Your task to perform on an android device: check android version Image 0: 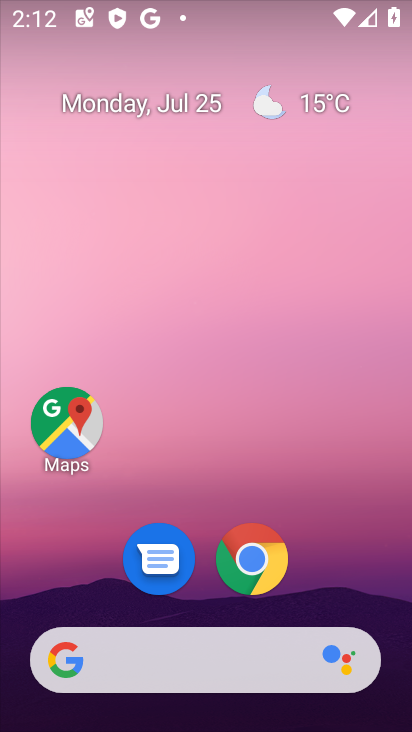
Step 0: drag from (243, 417) to (245, 24)
Your task to perform on an android device: check android version Image 1: 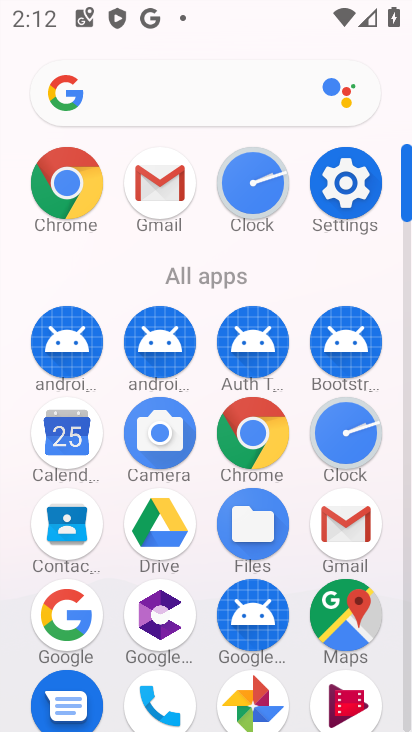
Step 1: click (345, 178)
Your task to perform on an android device: check android version Image 2: 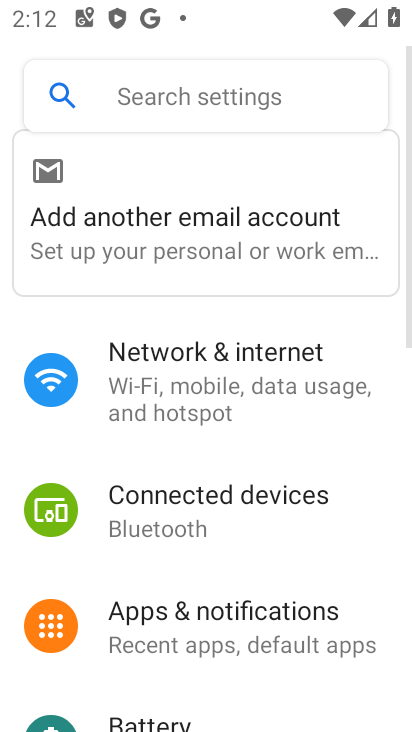
Step 2: drag from (143, 651) to (292, 21)
Your task to perform on an android device: check android version Image 3: 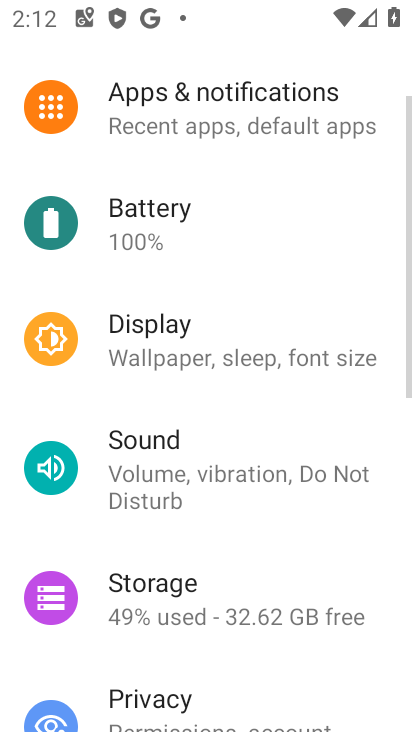
Step 3: drag from (187, 613) to (293, 13)
Your task to perform on an android device: check android version Image 4: 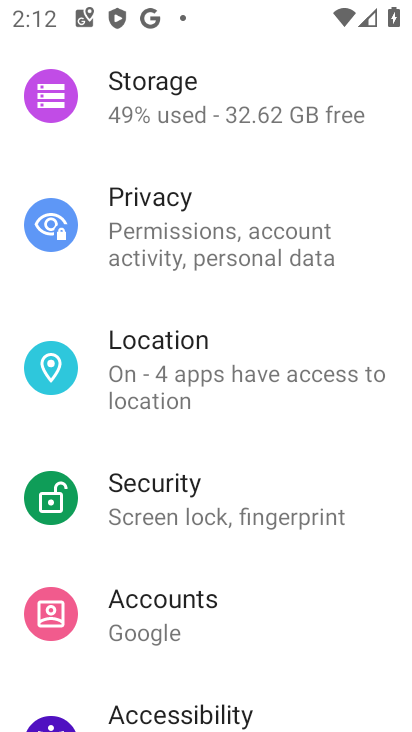
Step 4: drag from (252, 591) to (355, 64)
Your task to perform on an android device: check android version Image 5: 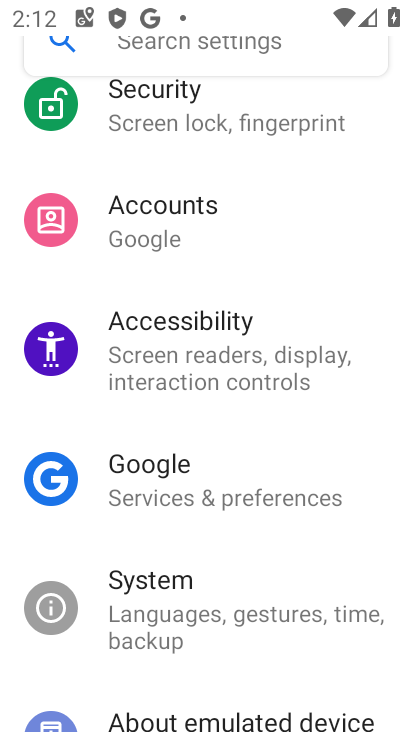
Step 5: drag from (203, 607) to (322, 32)
Your task to perform on an android device: check android version Image 6: 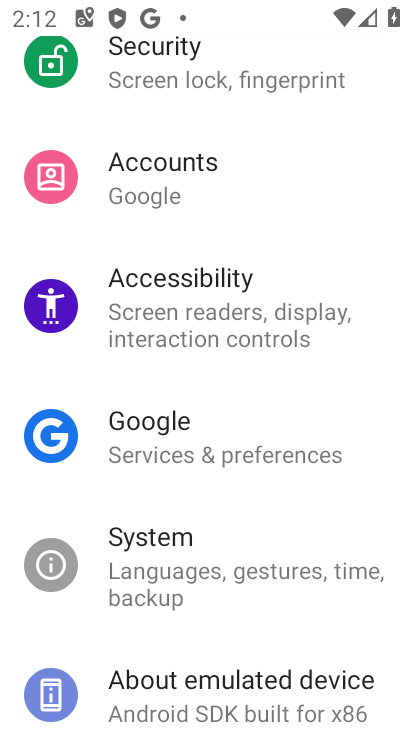
Step 6: click (177, 680)
Your task to perform on an android device: check android version Image 7: 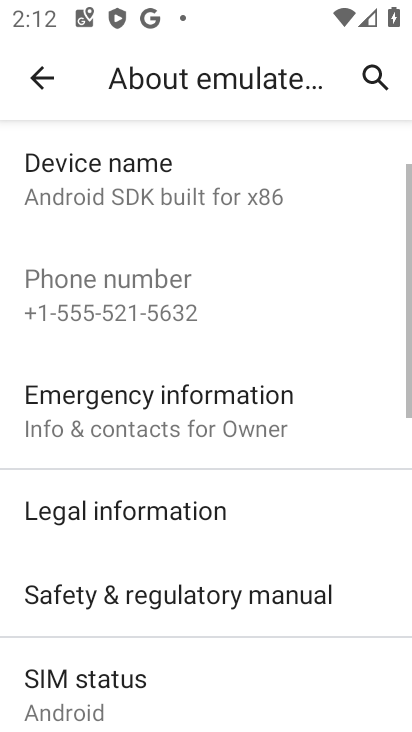
Step 7: drag from (183, 599) to (283, 174)
Your task to perform on an android device: check android version Image 8: 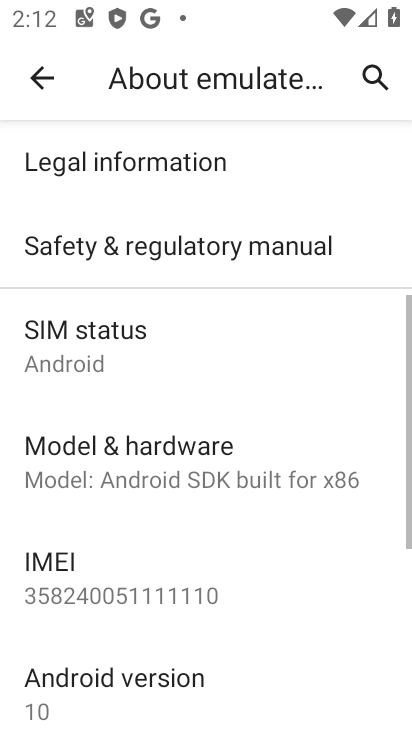
Step 8: click (137, 663)
Your task to perform on an android device: check android version Image 9: 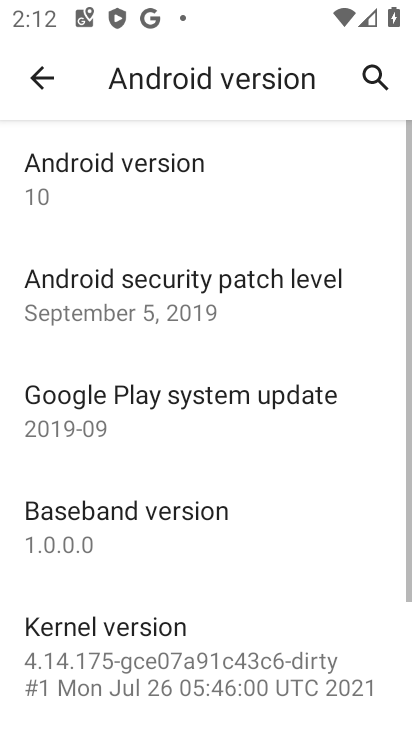
Step 9: task complete